Your task to perform on an android device: turn on sleep mode Image 0: 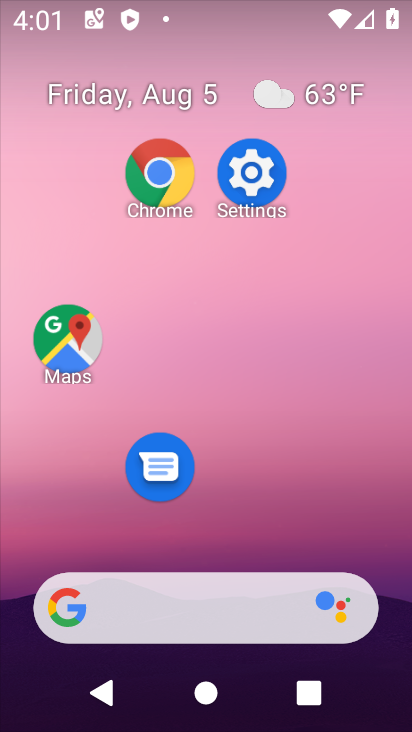
Step 0: press home button
Your task to perform on an android device: turn on sleep mode Image 1: 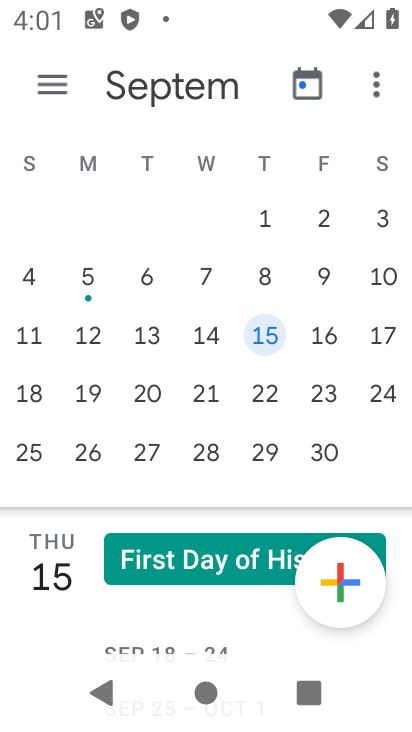
Step 1: click (328, 42)
Your task to perform on an android device: turn on sleep mode Image 2: 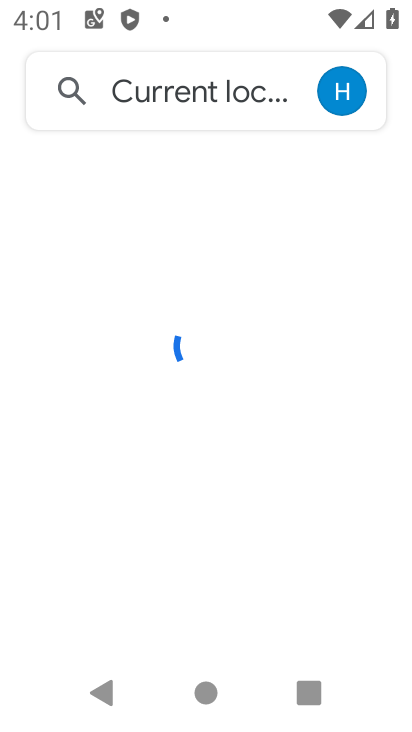
Step 2: press home button
Your task to perform on an android device: turn on sleep mode Image 3: 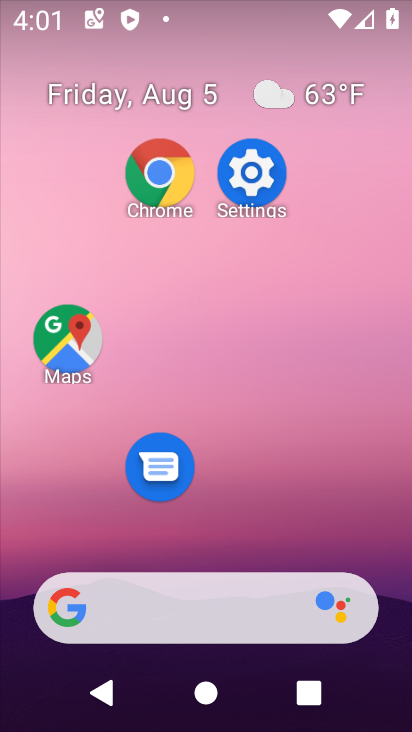
Step 3: click (255, 163)
Your task to perform on an android device: turn on sleep mode Image 4: 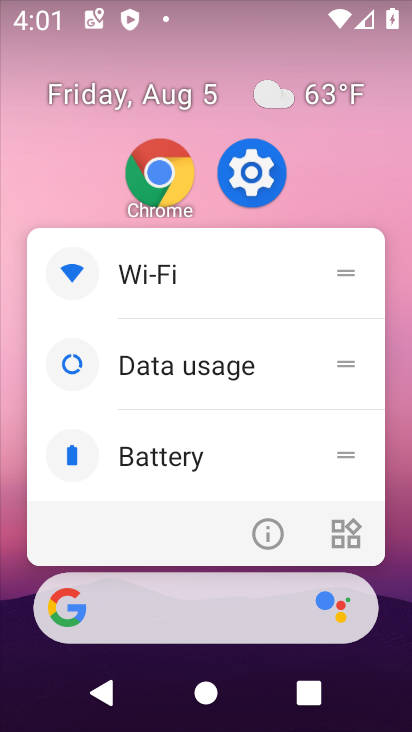
Step 4: click (255, 163)
Your task to perform on an android device: turn on sleep mode Image 5: 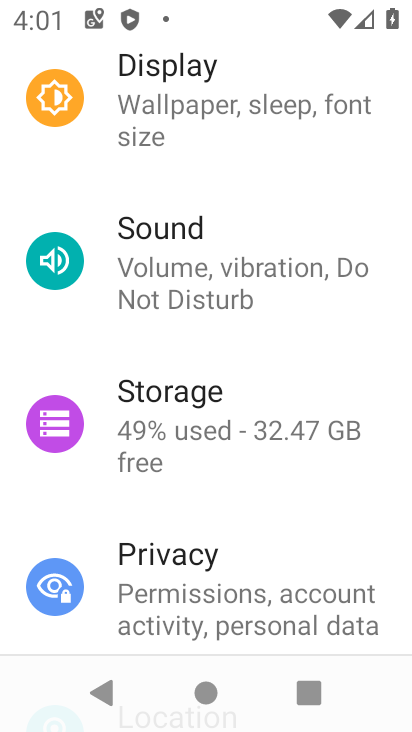
Step 5: click (237, 116)
Your task to perform on an android device: turn on sleep mode Image 6: 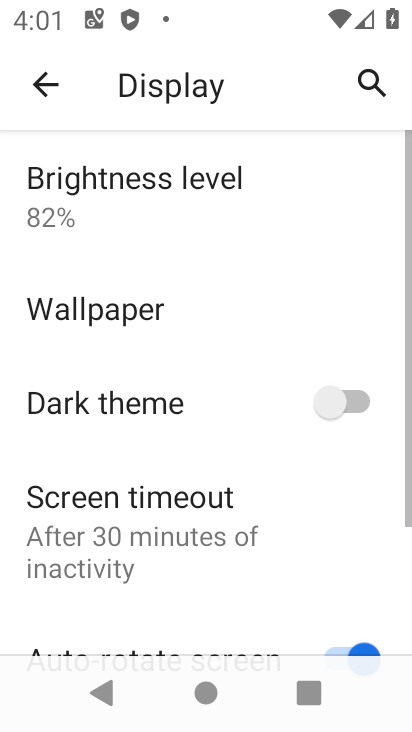
Step 6: task complete